Your task to perform on an android device: Open location settings Image 0: 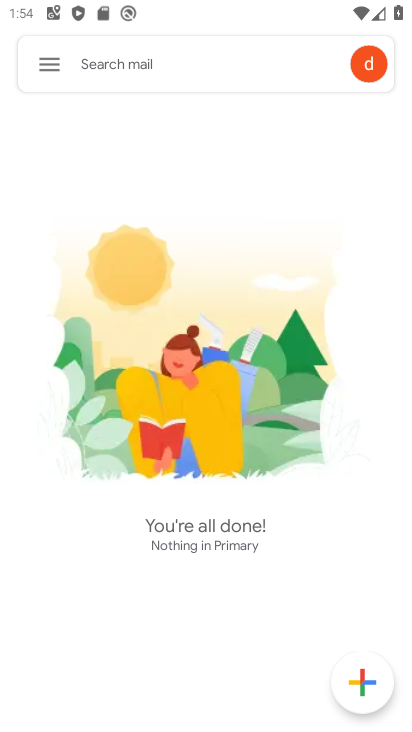
Step 0: press home button
Your task to perform on an android device: Open location settings Image 1: 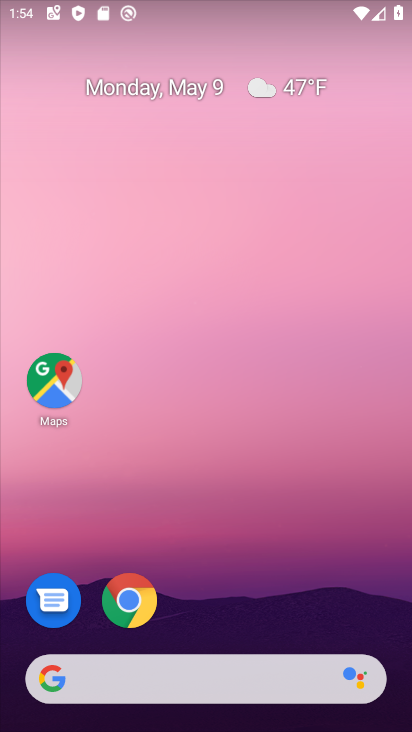
Step 1: drag from (195, 615) to (267, 138)
Your task to perform on an android device: Open location settings Image 2: 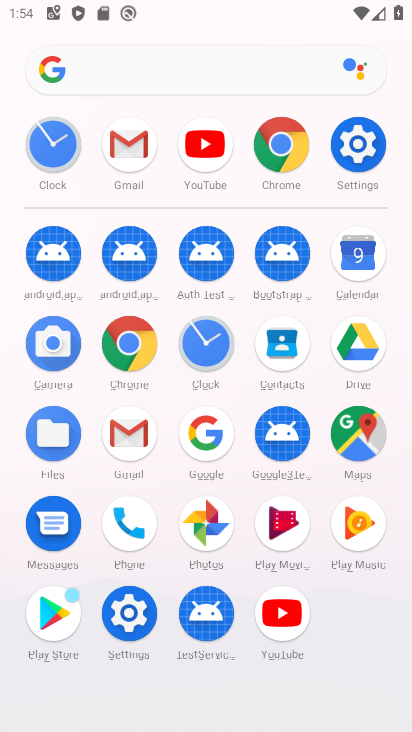
Step 2: click (359, 151)
Your task to perform on an android device: Open location settings Image 3: 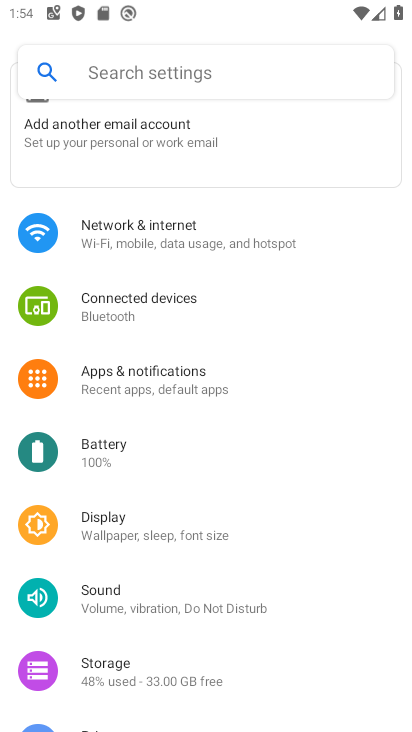
Step 3: drag from (82, 617) to (208, 66)
Your task to perform on an android device: Open location settings Image 4: 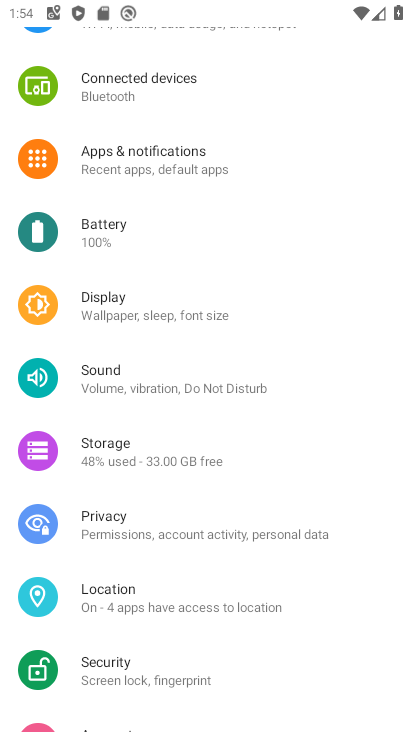
Step 4: click (92, 596)
Your task to perform on an android device: Open location settings Image 5: 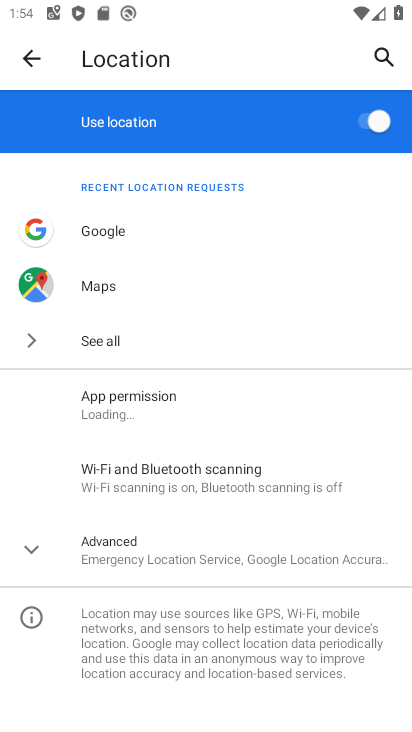
Step 5: task complete